Your task to perform on an android device: set default search engine in the chrome app Image 0: 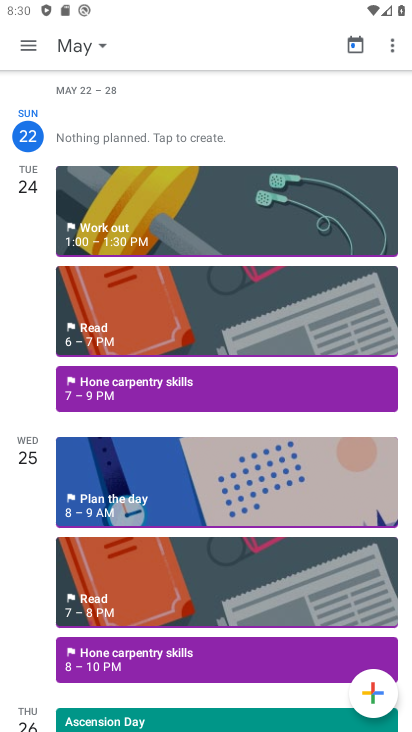
Step 0: press home button
Your task to perform on an android device: set default search engine in the chrome app Image 1: 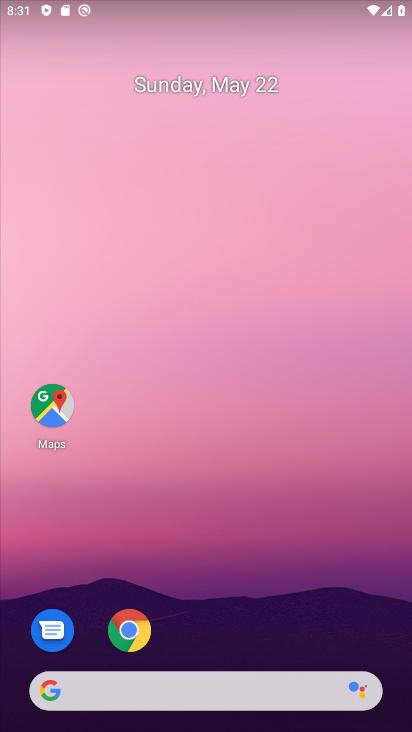
Step 1: drag from (238, 624) to (257, 212)
Your task to perform on an android device: set default search engine in the chrome app Image 2: 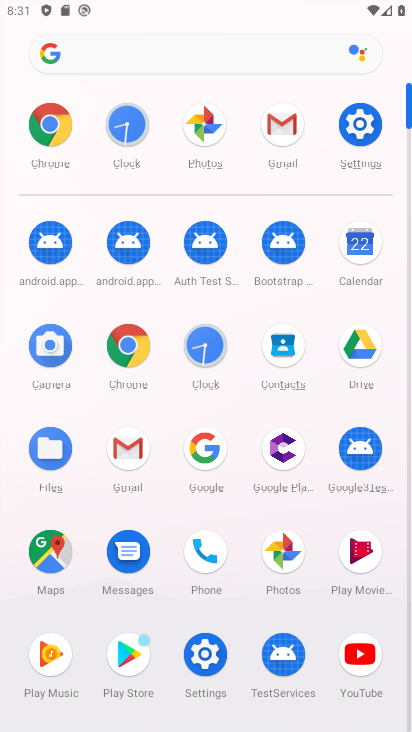
Step 2: click (45, 125)
Your task to perform on an android device: set default search engine in the chrome app Image 3: 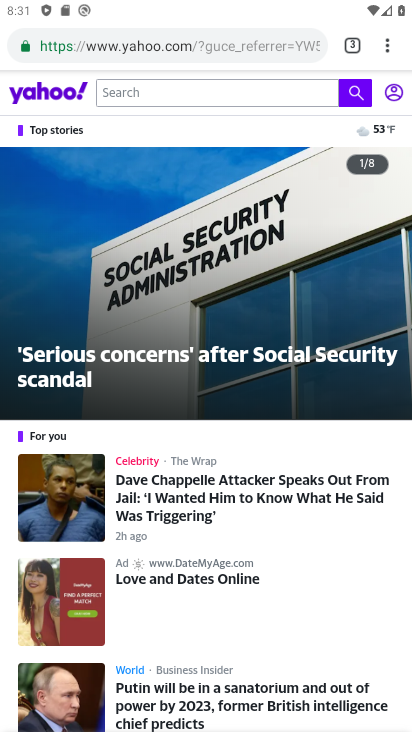
Step 3: click (385, 54)
Your task to perform on an android device: set default search engine in the chrome app Image 4: 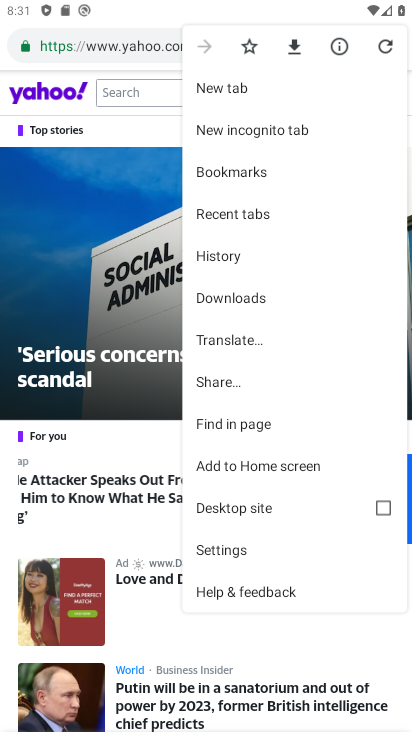
Step 4: click (253, 555)
Your task to perform on an android device: set default search engine in the chrome app Image 5: 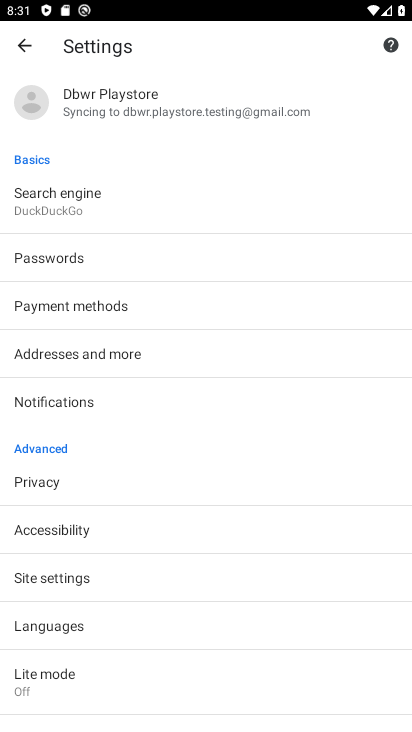
Step 5: click (108, 203)
Your task to perform on an android device: set default search engine in the chrome app Image 6: 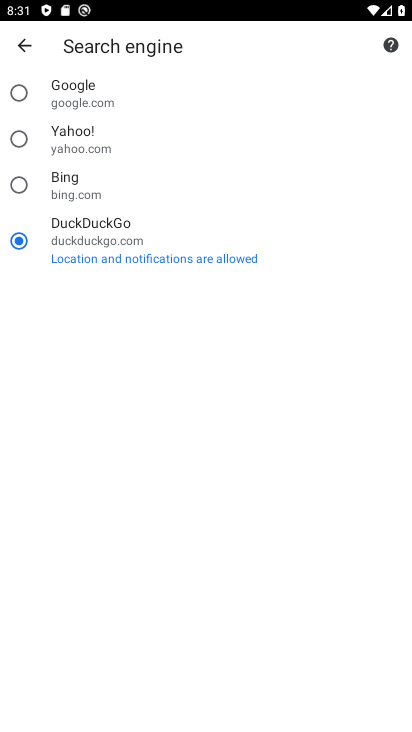
Step 6: click (98, 166)
Your task to perform on an android device: set default search engine in the chrome app Image 7: 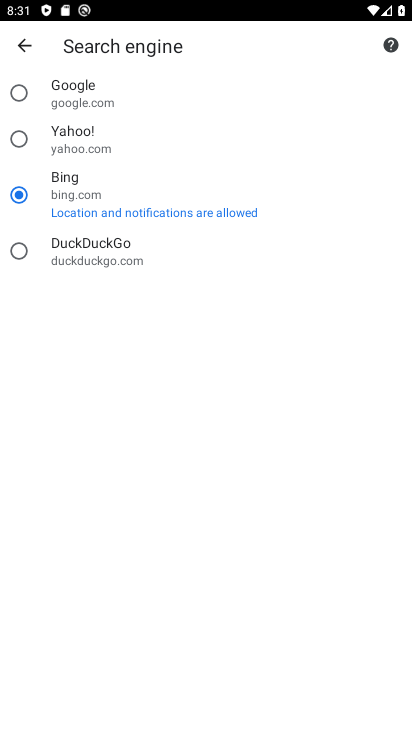
Step 7: task complete